Your task to perform on an android device: toggle airplane mode Image 0: 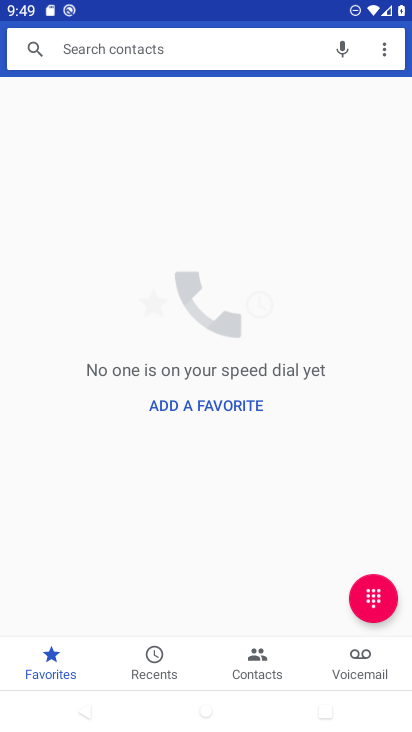
Step 0: press home button
Your task to perform on an android device: toggle airplane mode Image 1: 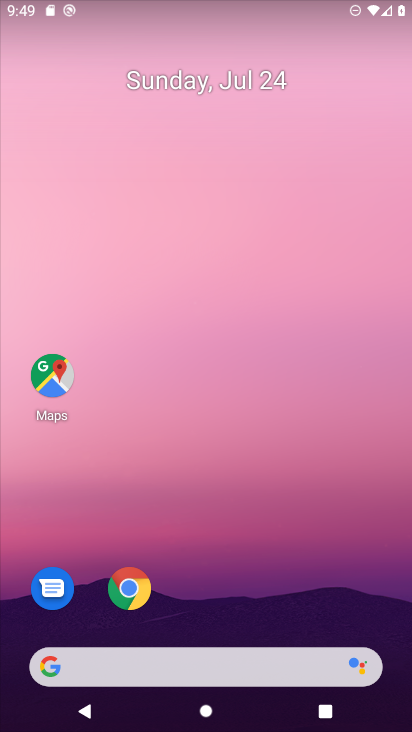
Step 1: drag from (218, 639) to (234, 2)
Your task to perform on an android device: toggle airplane mode Image 2: 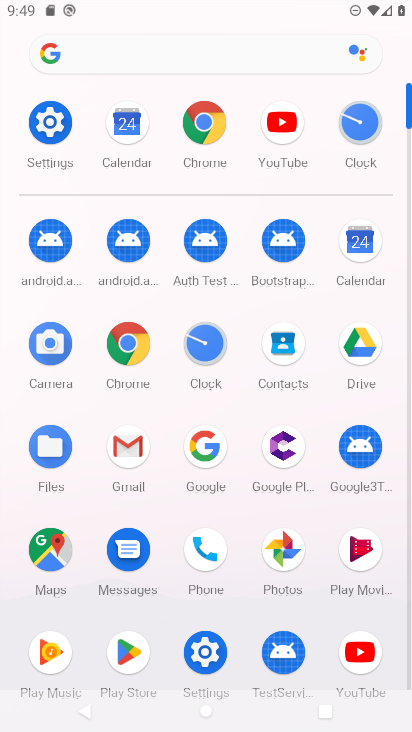
Step 2: click (45, 123)
Your task to perform on an android device: toggle airplane mode Image 3: 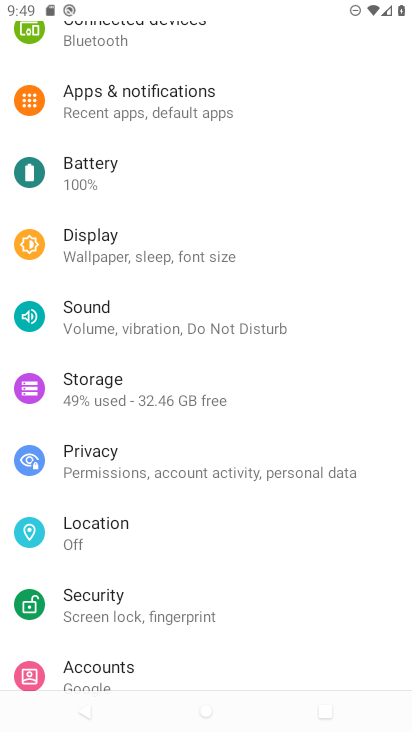
Step 3: drag from (262, 125) to (262, 296)
Your task to perform on an android device: toggle airplane mode Image 4: 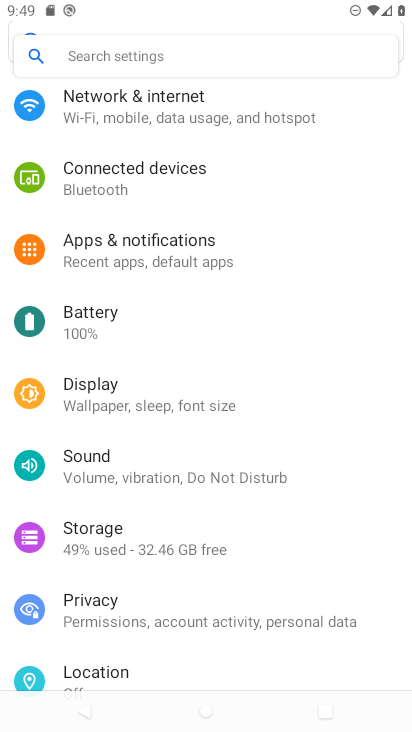
Step 4: drag from (241, 167) to (253, 369)
Your task to perform on an android device: toggle airplane mode Image 5: 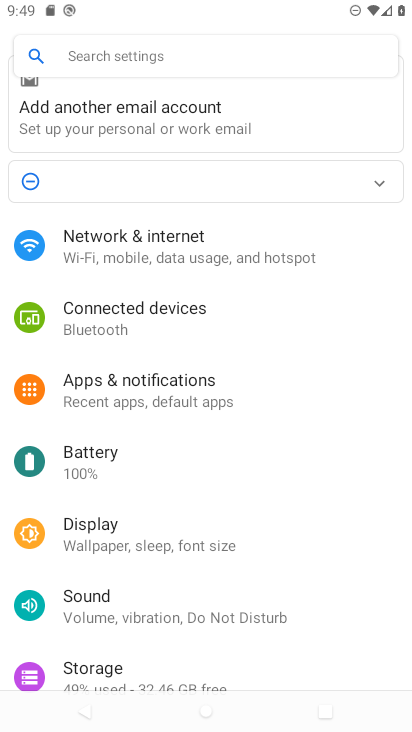
Step 5: click (133, 263)
Your task to perform on an android device: toggle airplane mode Image 6: 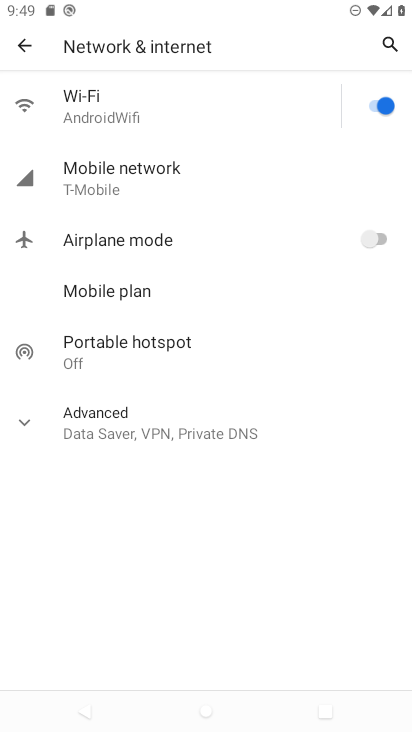
Step 6: click (375, 232)
Your task to perform on an android device: toggle airplane mode Image 7: 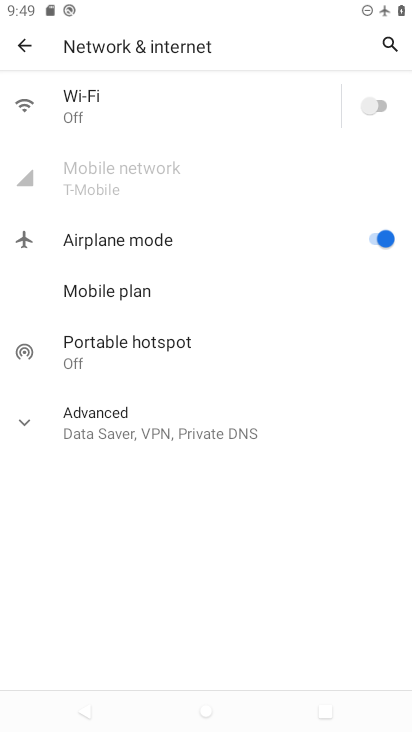
Step 7: task complete